Your task to perform on an android device: Open Chrome and go to settings Image 0: 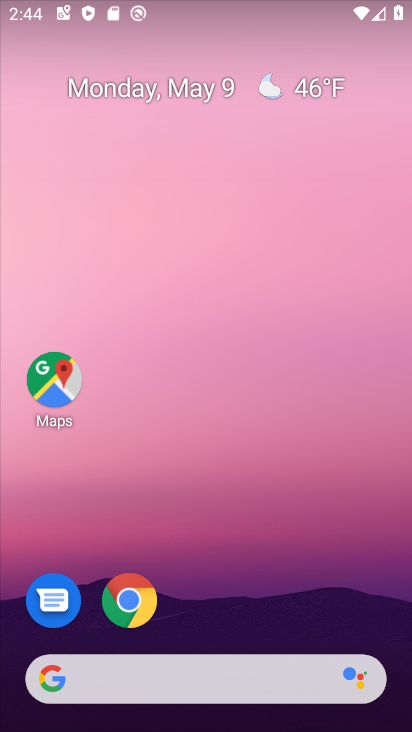
Step 0: click (130, 611)
Your task to perform on an android device: Open Chrome and go to settings Image 1: 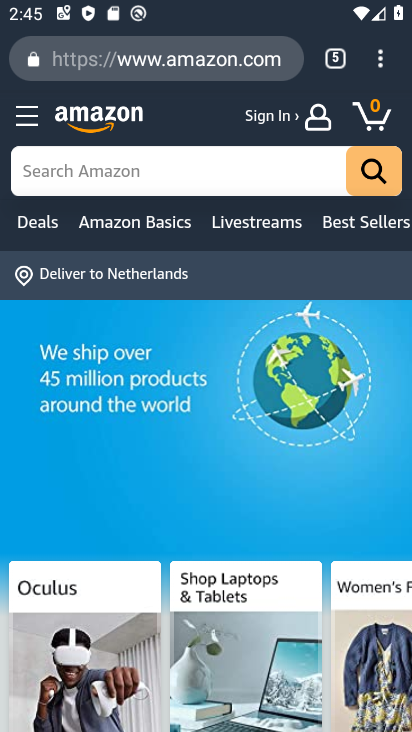
Step 1: click (385, 58)
Your task to perform on an android device: Open Chrome and go to settings Image 2: 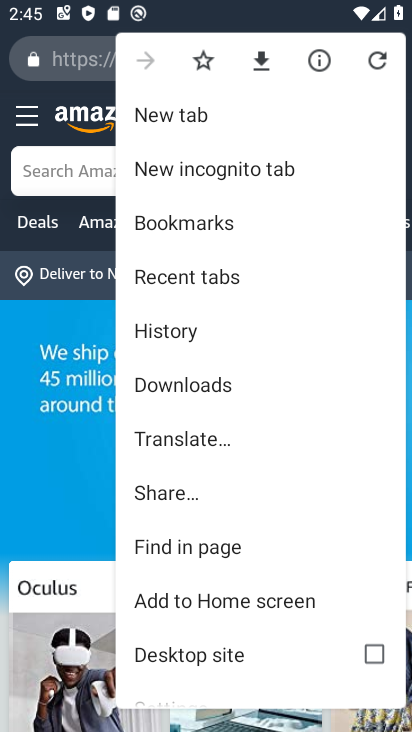
Step 2: drag from (190, 624) to (284, 140)
Your task to perform on an android device: Open Chrome and go to settings Image 3: 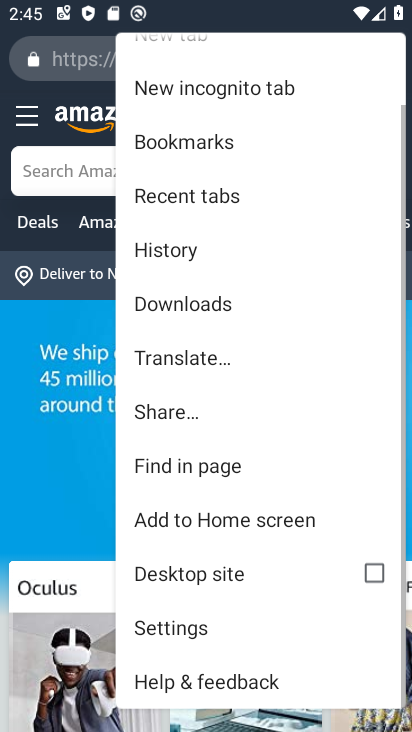
Step 3: click (224, 636)
Your task to perform on an android device: Open Chrome and go to settings Image 4: 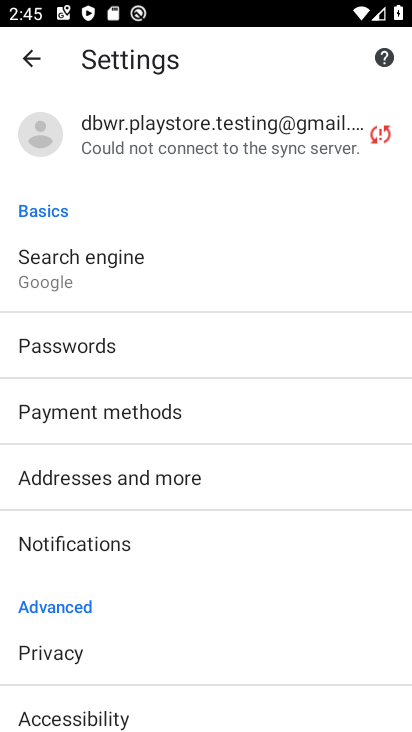
Step 4: task complete